Your task to perform on an android device: turn on airplane mode Image 0: 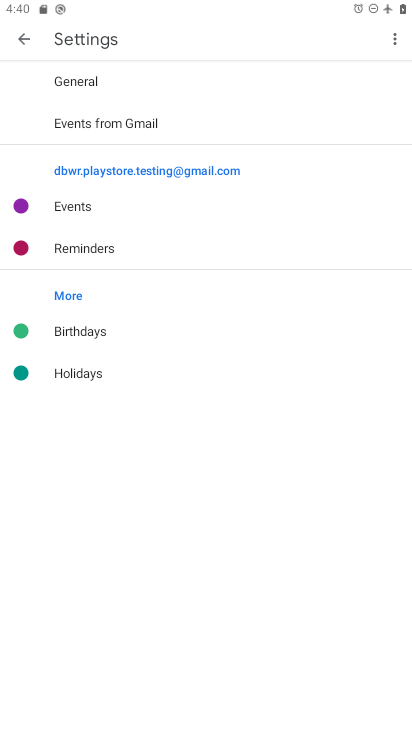
Step 0: press home button
Your task to perform on an android device: turn on airplane mode Image 1: 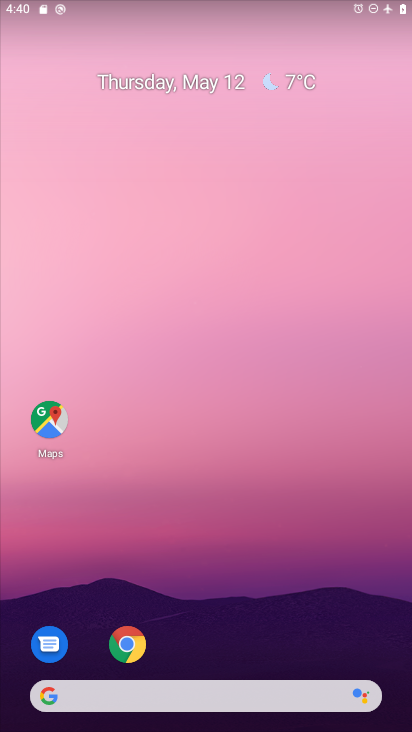
Step 1: drag from (240, 632) to (297, 7)
Your task to perform on an android device: turn on airplane mode Image 2: 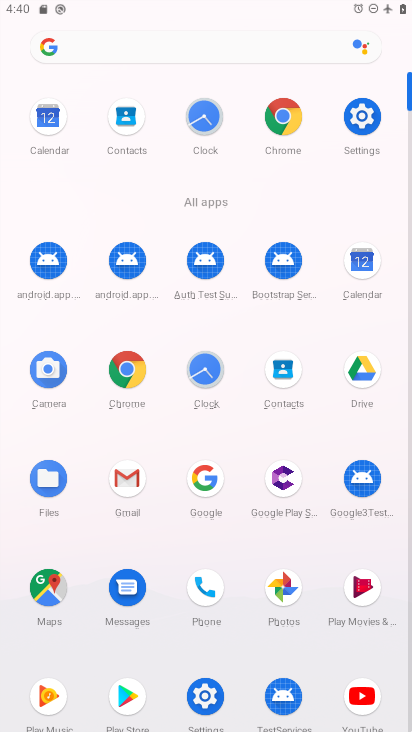
Step 2: click (365, 144)
Your task to perform on an android device: turn on airplane mode Image 3: 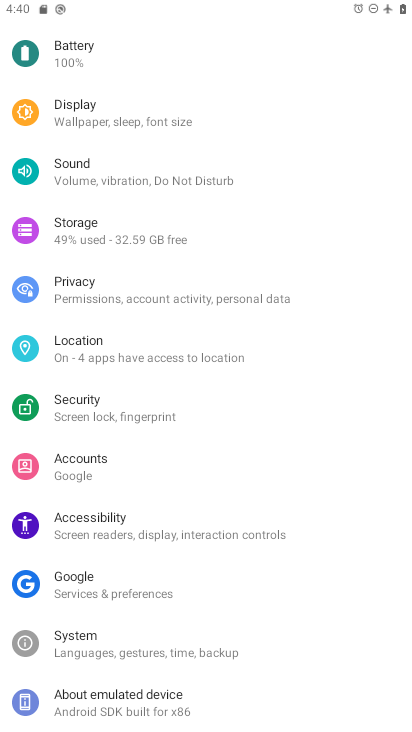
Step 3: drag from (191, 135) to (189, 542)
Your task to perform on an android device: turn on airplane mode Image 4: 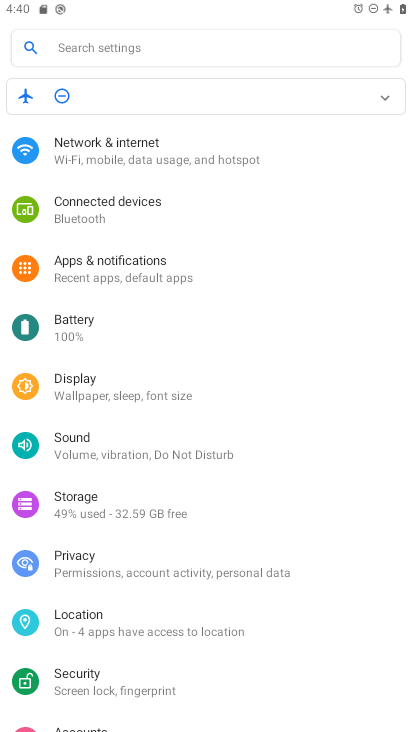
Step 4: click (163, 160)
Your task to perform on an android device: turn on airplane mode Image 5: 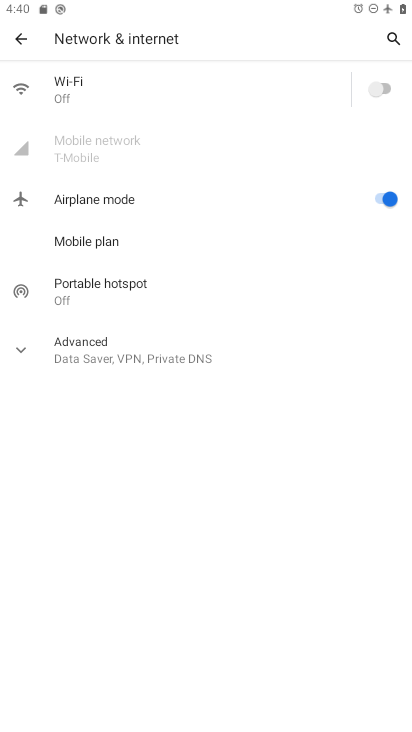
Step 5: task complete